Your task to perform on an android device: turn on sleep mode Image 0: 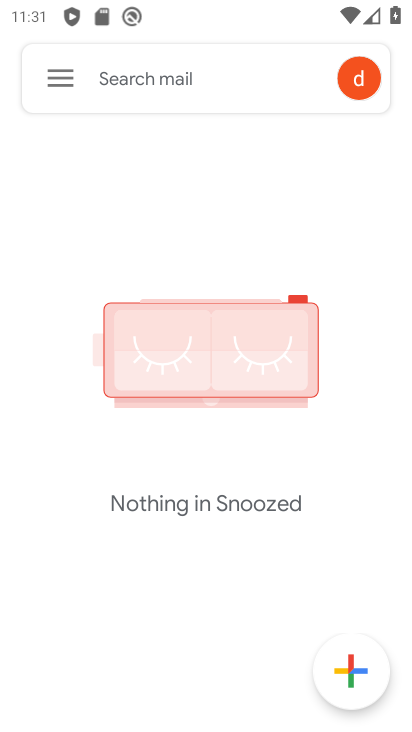
Step 0: press home button
Your task to perform on an android device: turn on sleep mode Image 1: 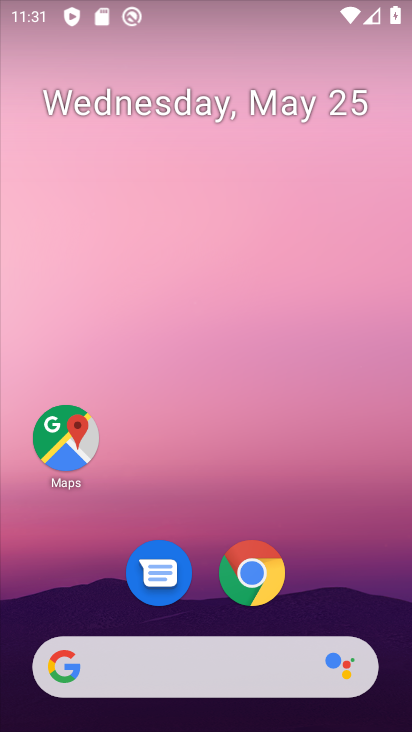
Step 1: drag from (191, 668) to (258, 26)
Your task to perform on an android device: turn on sleep mode Image 2: 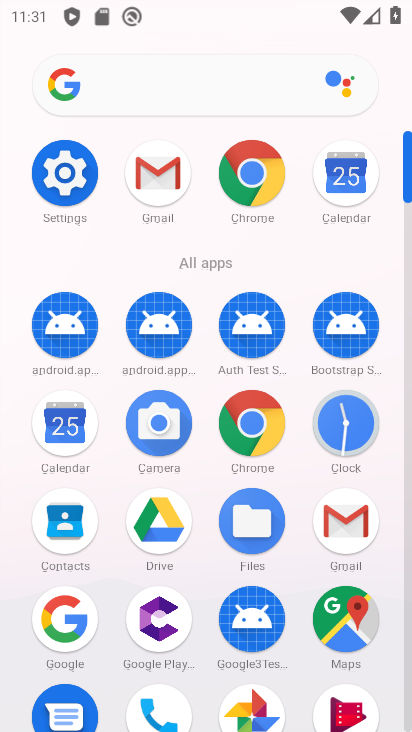
Step 2: click (76, 152)
Your task to perform on an android device: turn on sleep mode Image 3: 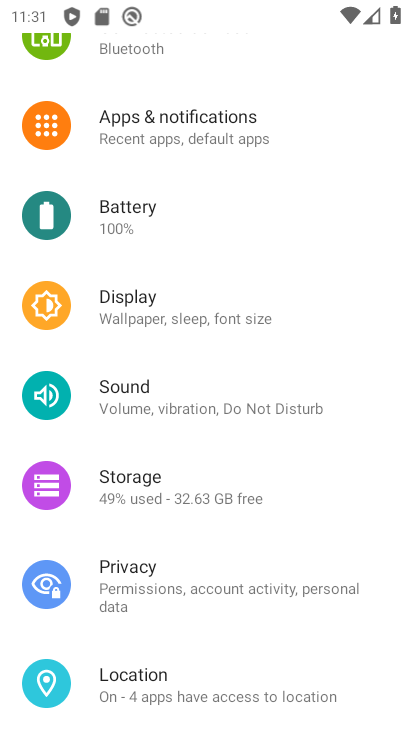
Step 3: click (112, 317)
Your task to perform on an android device: turn on sleep mode Image 4: 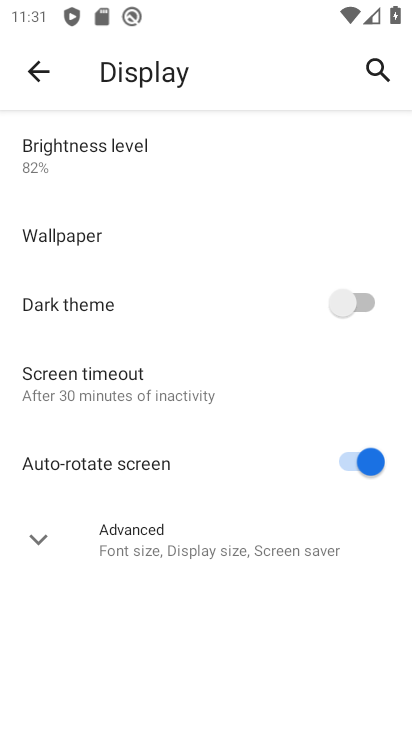
Step 4: click (206, 572)
Your task to perform on an android device: turn on sleep mode Image 5: 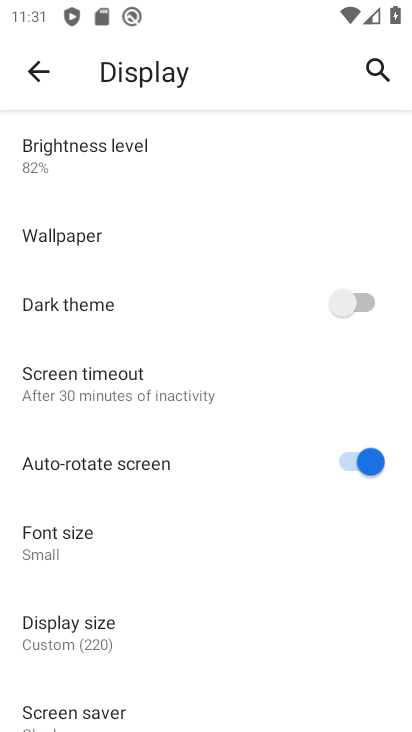
Step 5: task complete